Your task to perform on an android device: toggle improve location accuracy Image 0: 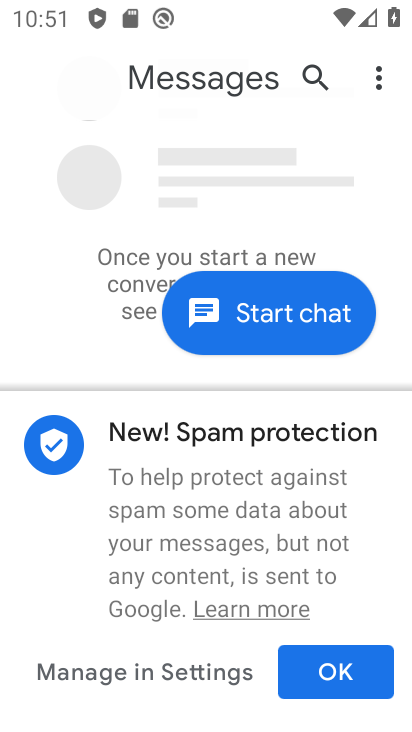
Step 0: press home button
Your task to perform on an android device: toggle improve location accuracy Image 1: 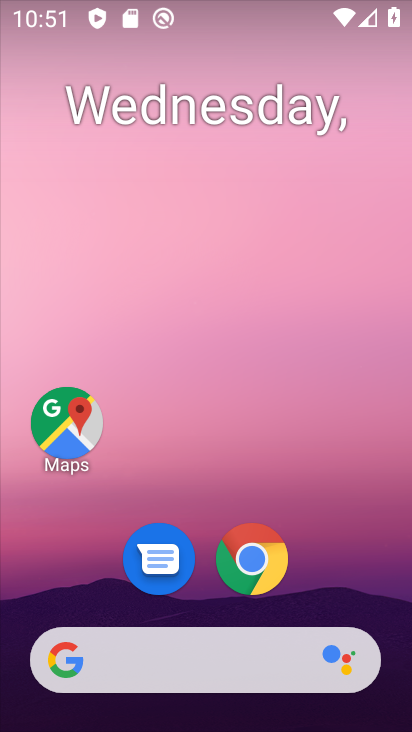
Step 1: drag from (336, 610) to (322, 184)
Your task to perform on an android device: toggle improve location accuracy Image 2: 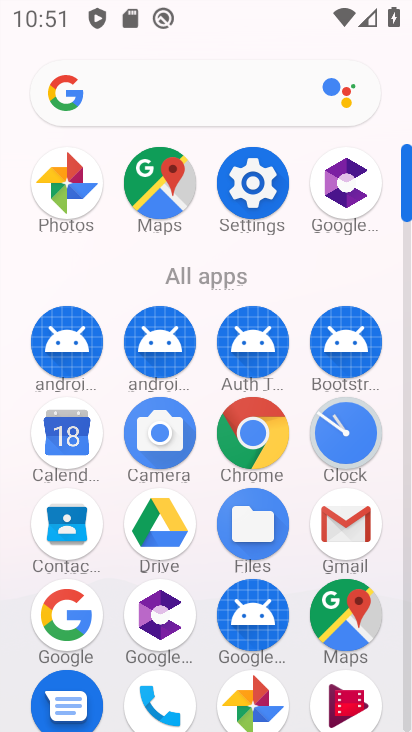
Step 2: click (246, 198)
Your task to perform on an android device: toggle improve location accuracy Image 3: 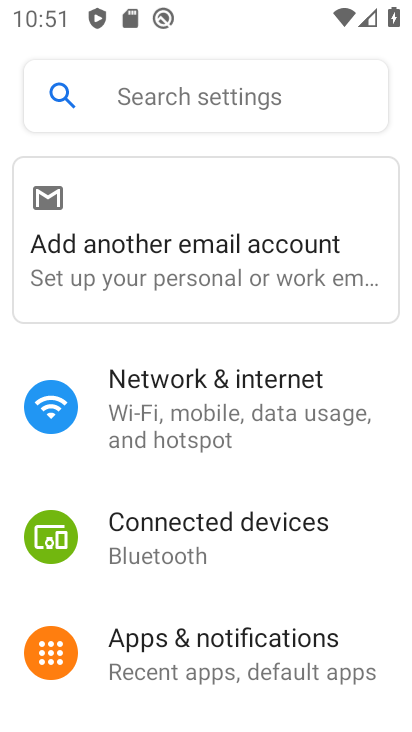
Step 3: drag from (335, 684) to (311, 177)
Your task to perform on an android device: toggle improve location accuracy Image 4: 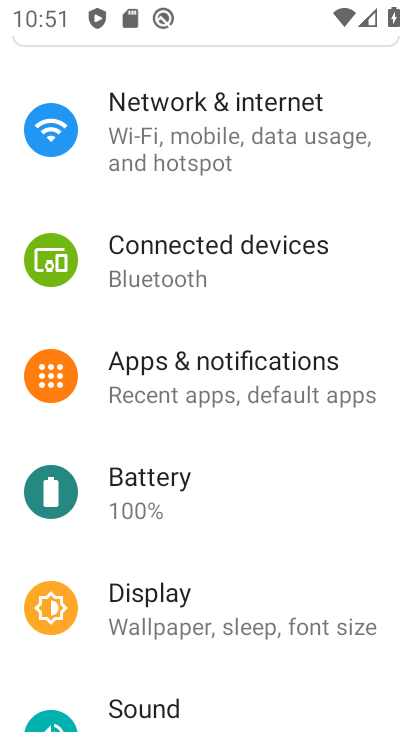
Step 4: drag from (309, 672) to (262, 246)
Your task to perform on an android device: toggle improve location accuracy Image 5: 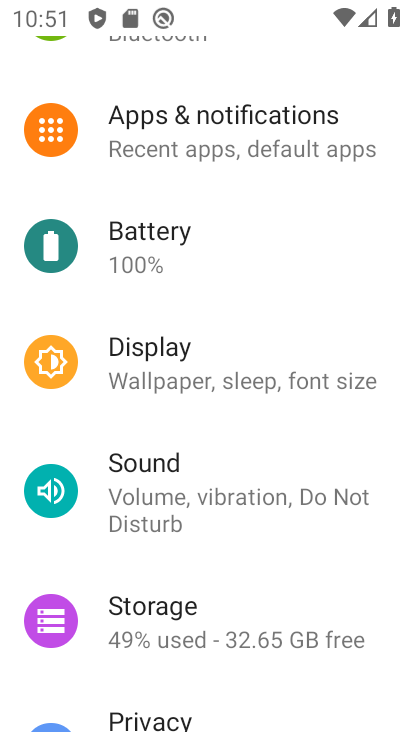
Step 5: drag from (271, 677) to (261, 204)
Your task to perform on an android device: toggle improve location accuracy Image 6: 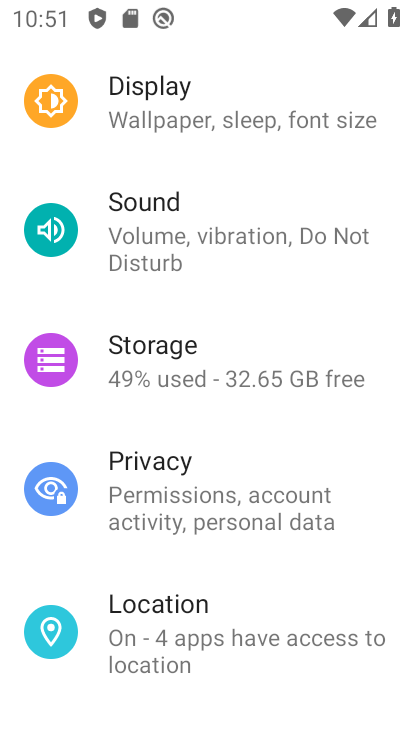
Step 6: click (312, 644)
Your task to perform on an android device: toggle improve location accuracy Image 7: 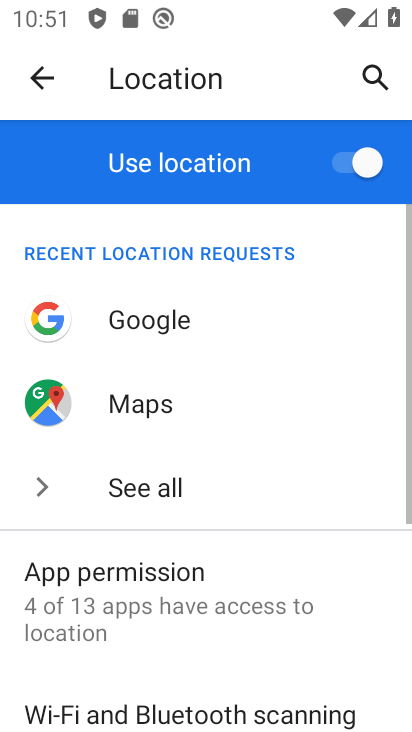
Step 7: drag from (370, 676) to (297, 227)
Your task to perform on an android device: toggle improve location accuracy Image 8: 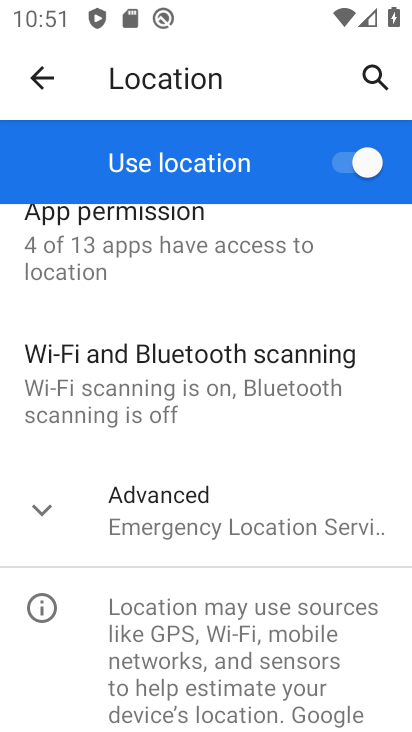
Step 8: click (299, 545)
Your task to perform on an android device: toggle improve location accuracy Image 9: 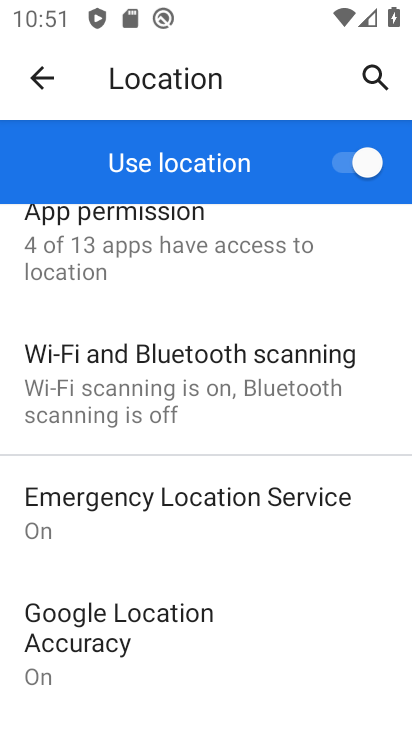
Step 9: click (312, 649)
Your task to perform on an android device: toggle improve location accuracy Image 10: 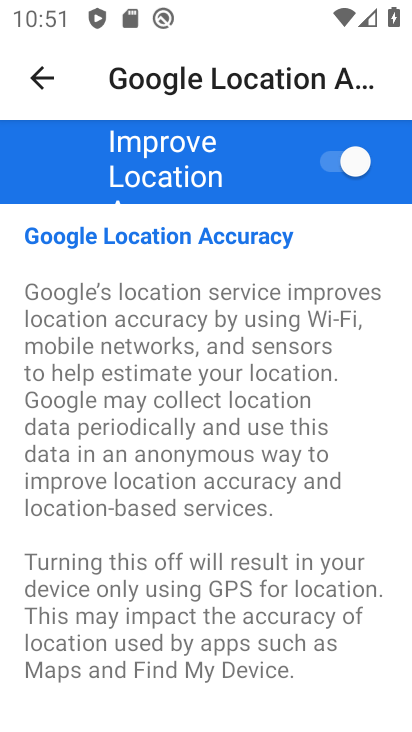
Step 10: click (355, 173)
Your task to perform on an android device: toggle improve location accuracy Image 11: 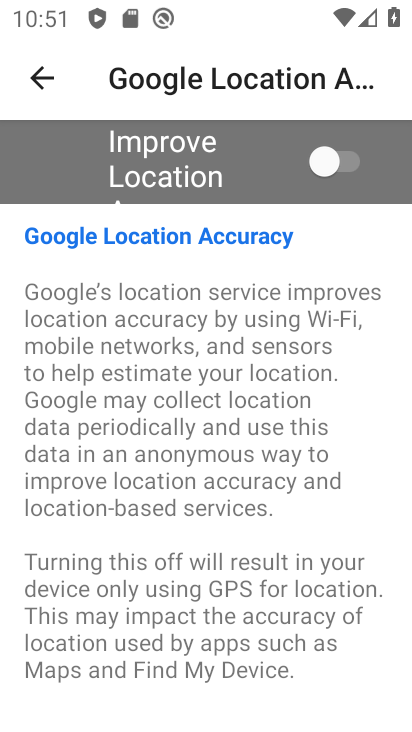
Step 11: task complete